Your task to perform on an android device: turn on airplane mode Image 0: 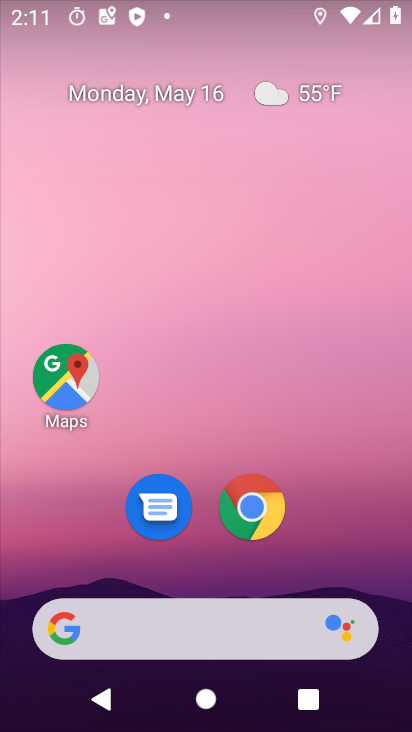
Step 0: drag from (200, 558) to (178, 41)
Your task to perform on an android device: turn on airplane mode Image 1: 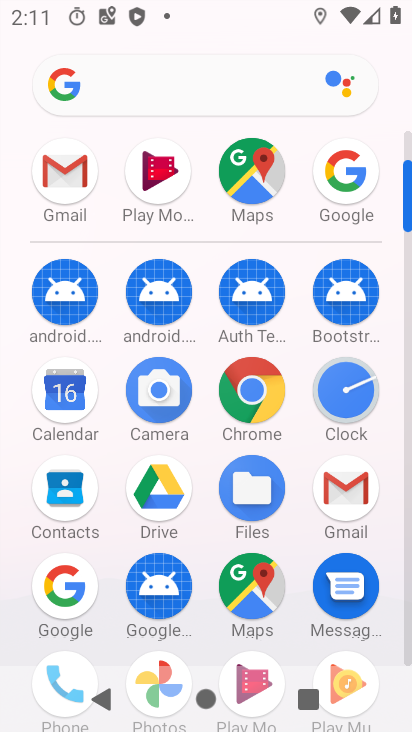
Step 1: drag from (200, 532) to (187, 84)
Your task to perform on an android device: turn on airplane mode Image 2: 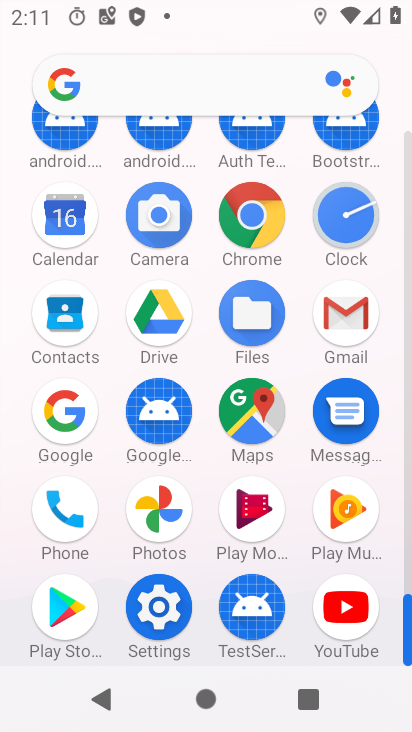
Step 2: click (165, 588)
Your task to perform on an android device: turn on airplane mode Image 3: 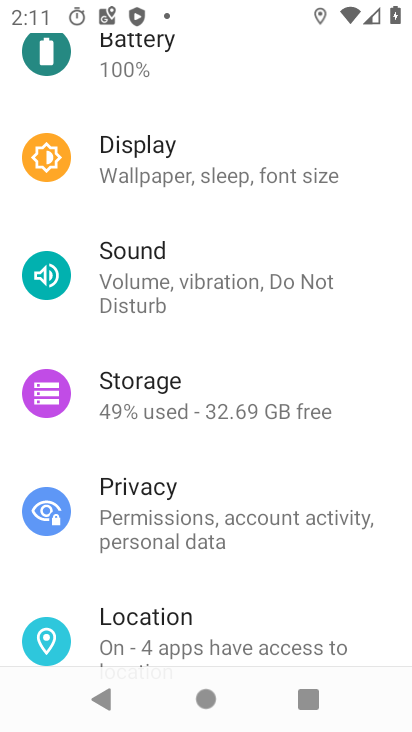
Step 3: drag from (235, 219) to (291, 633)
Your task to perform on an android device: turn on airplane mode Image 4: 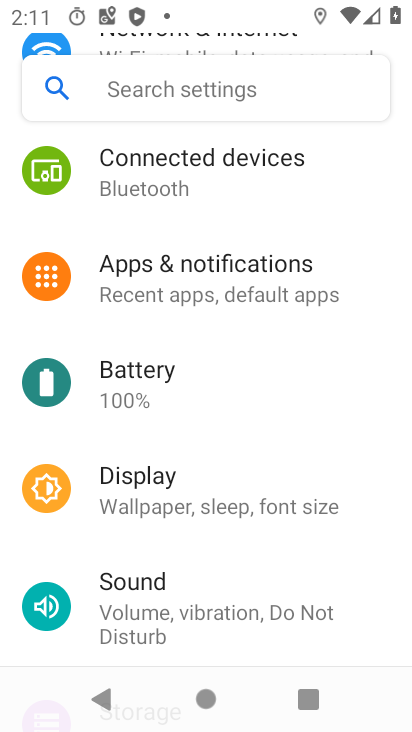
Step 4: drag from (211, 485) to (222, 633)
Your task to perform on an android device: turn on airplane mode Image 5: 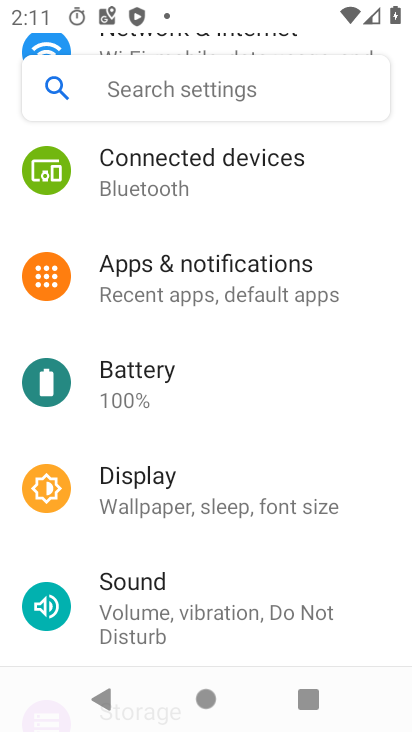
Step 5: drag from (139, 191) to (155, 624)
Your task to perform on an android device: turn on airplane mode Image 6: 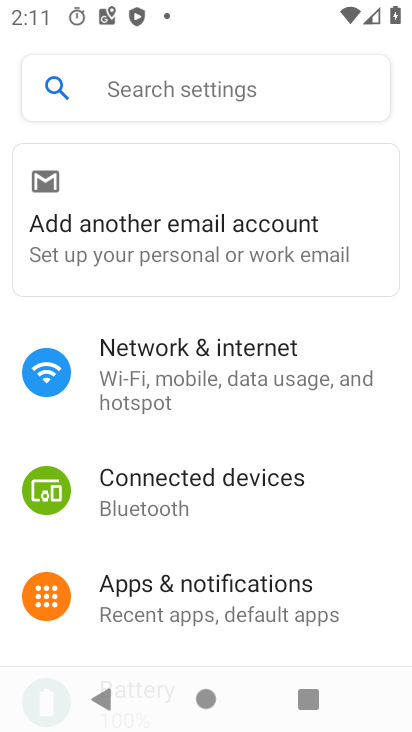
Step 6: click (181, 373)
Your task to perform on an android device: turn on airplane mode Image 7: 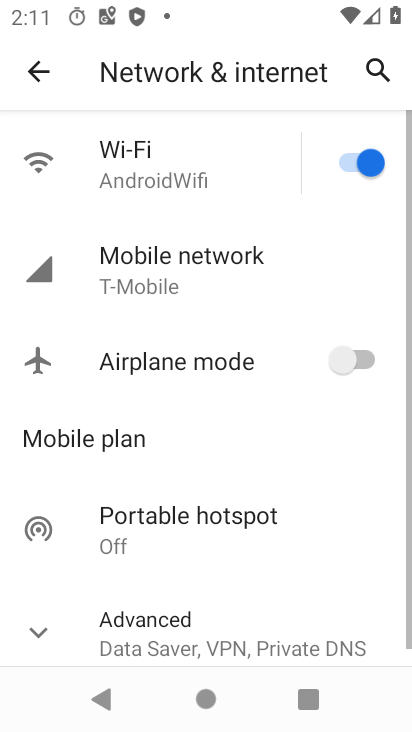
Step 7: click (346, 350)
Your task to perform on an android device: turn on airplane mode Image 8: 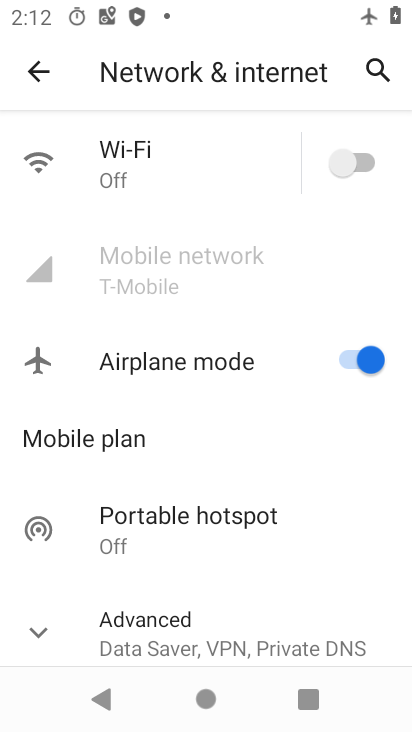
Step 8: task complete